Your task to perform on an android device: What's the weather? Image 0: 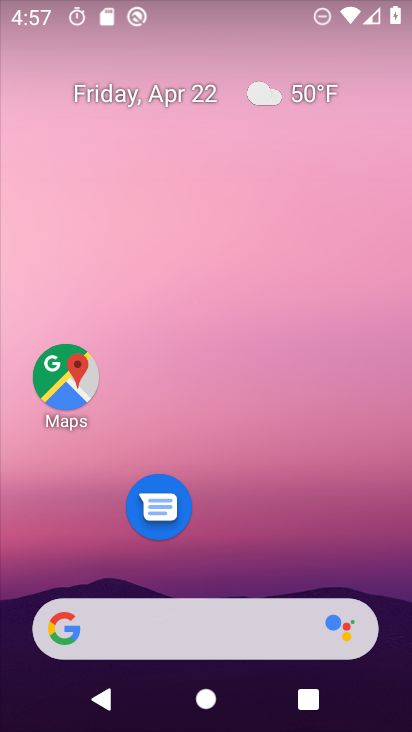
Step 0: click (270, 100)
Your task to perform on an android device: What's the weather? Image 1: 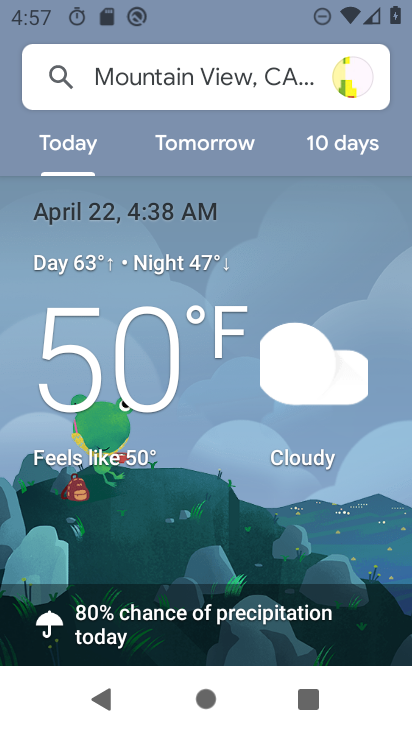
Step 1: task complete